Your task to perform on an android device: Search for seafood restaurants on Google Maps Image 0: 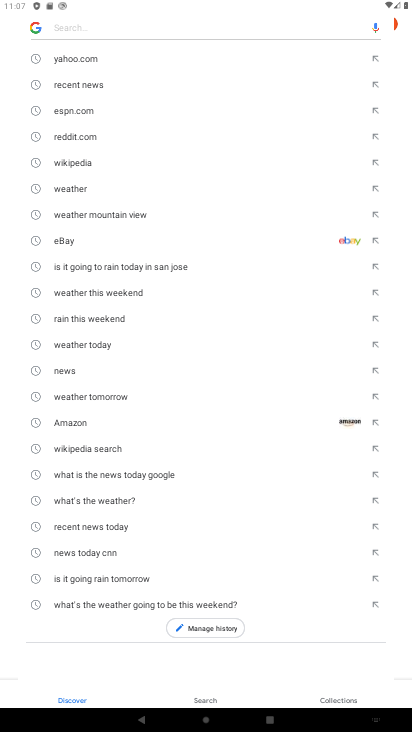
Step 0: press home button
Your task to perform on an android device: Search for seafood restaurants on Google Maps Image 1: 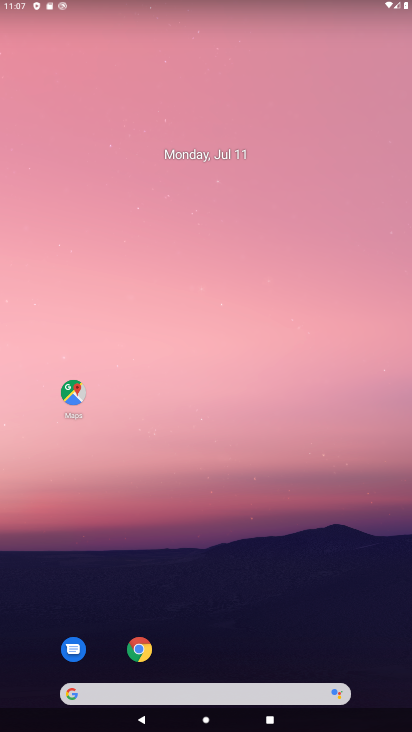
Step 1: click (71, 391)
Your task to perform on an android device: Search for seafood restaurants on Google Maps Image 2: 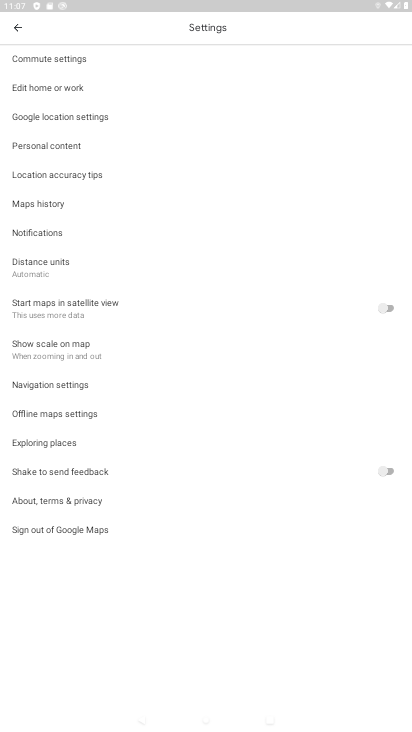
Step 2: press back button
Your task to perform on an android device: Search for seafood restaurants on Google Maps Image 3: 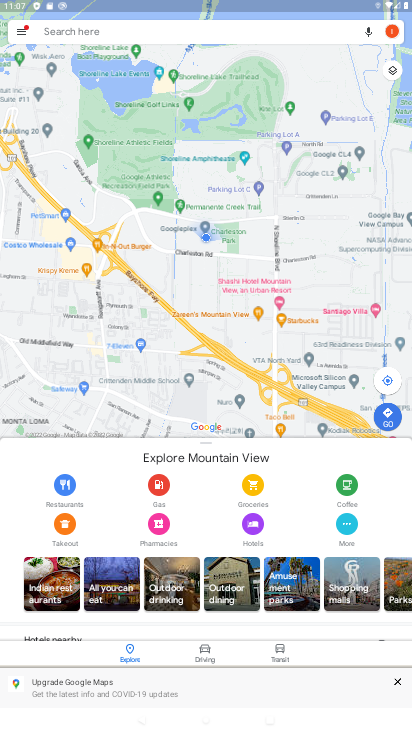
Step 3: click (302, 31)
Your task to perform on an android device: Search for seafood restaurants on Google Maps Image 4: 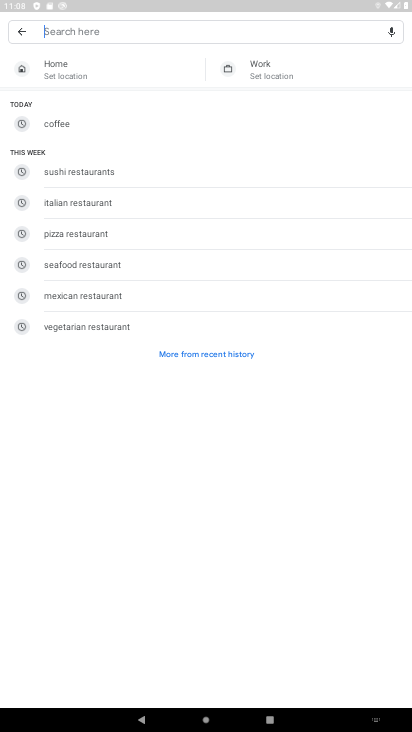
Step 4: type "seafood resstaurants"
Your task to perform on an android device: Search for seafood restaurants on Google Maps Image 5: 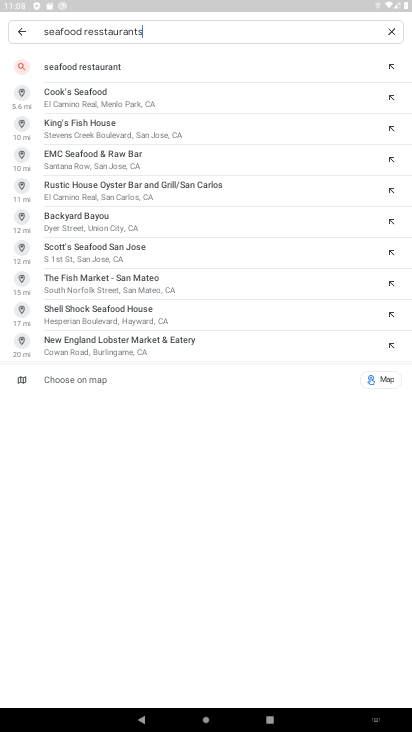
Step 5: click (116, 68)
Your task to perform on an android device: Search for seafood restaurants on Google Maps Image 6: 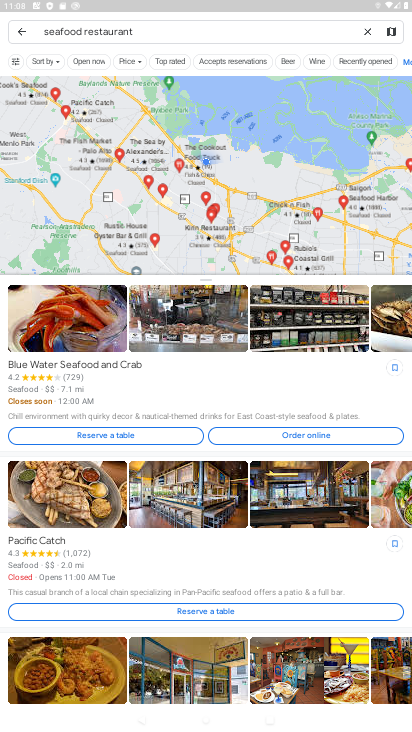
Step 6: task complete